Your task to perform on an android device: change text size in settings app Image 0: 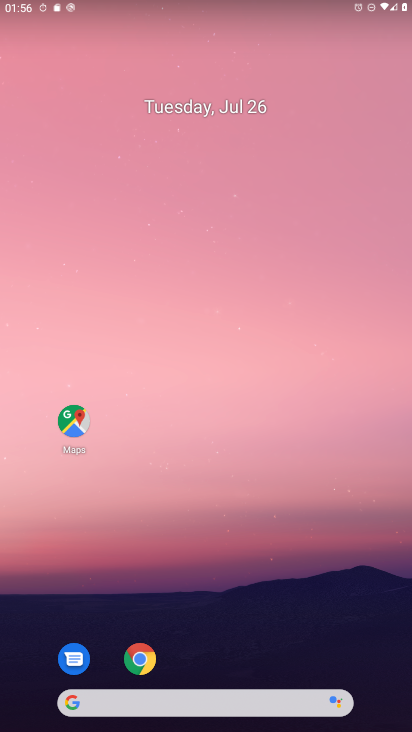
Step 0: drag from (325, 218) to (302, 0)
Your task to perform on an android device: change text size in settings app Image 1: 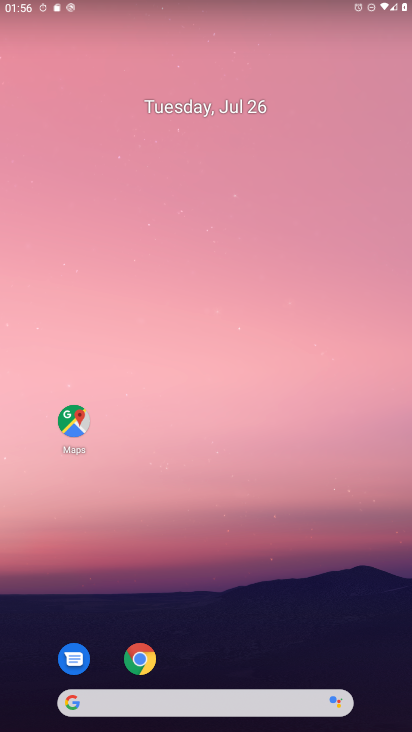
Step 1: drag from (296, 604) to (266, 74)
Your task to perform on an android device: change text size in settings app Image 2: 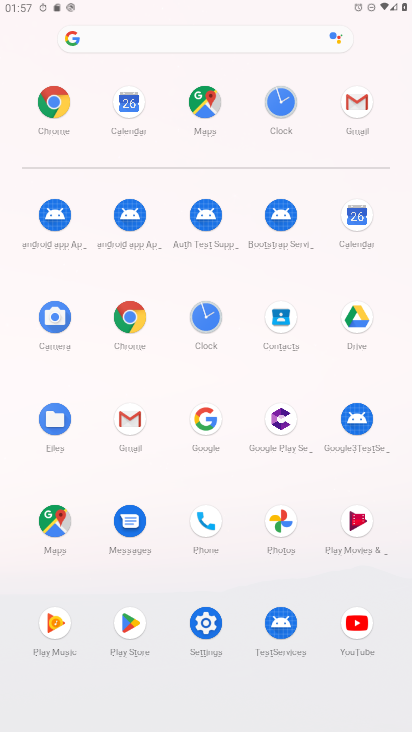
Step 2: click (198, 648)
Your task to perform on an android device: change text size in settings app Image 3: 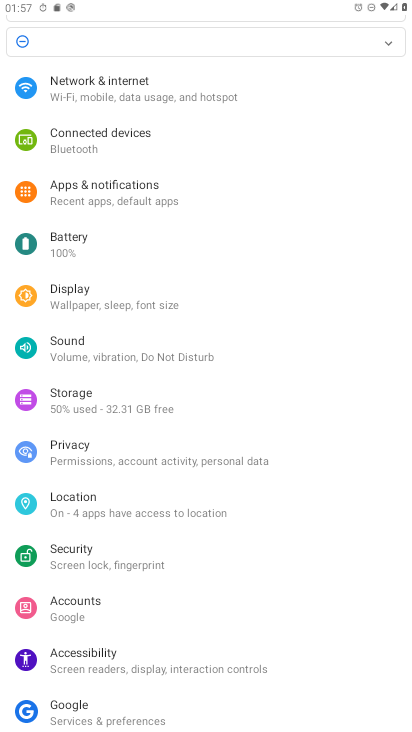
Step 3: drag from (235, 592) to (214, 99)
Your task to perform on an android device: change text size in settings app Image 4: 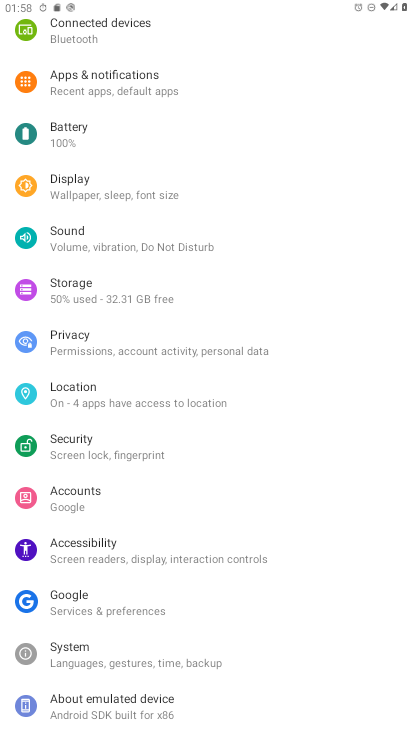
Step 4: drag from (136, 170) to (157, 273)
Your task to perform on an android device: change text size in settings app Image 5: 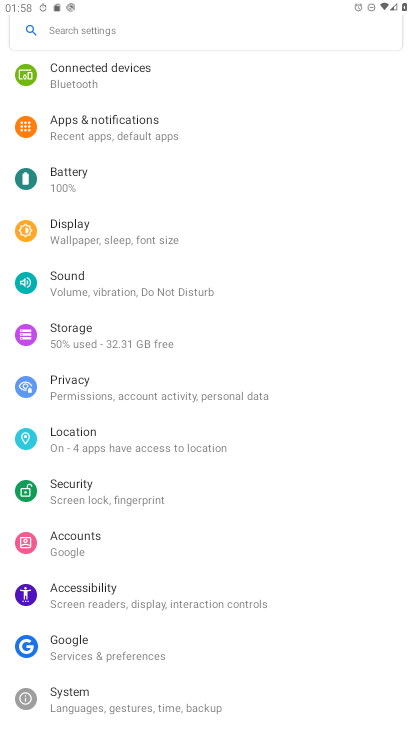
Step 5: click (97, 242)
Your task to perform on an android device: change text size in settings app Image 6: 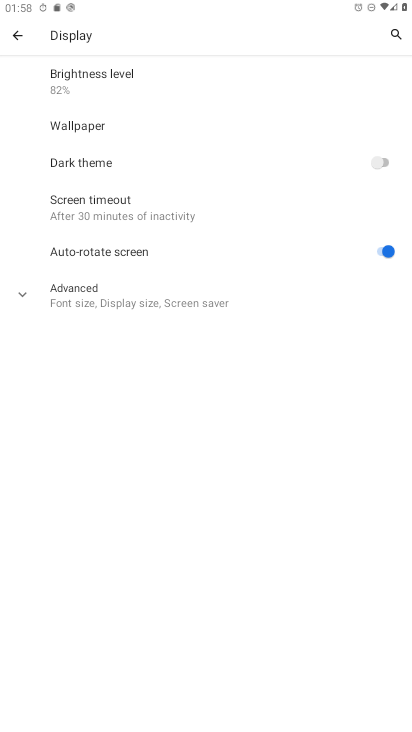
Step 6: click (108, 283)
Your task to perform on an android device: change text size in settings app Image 7: 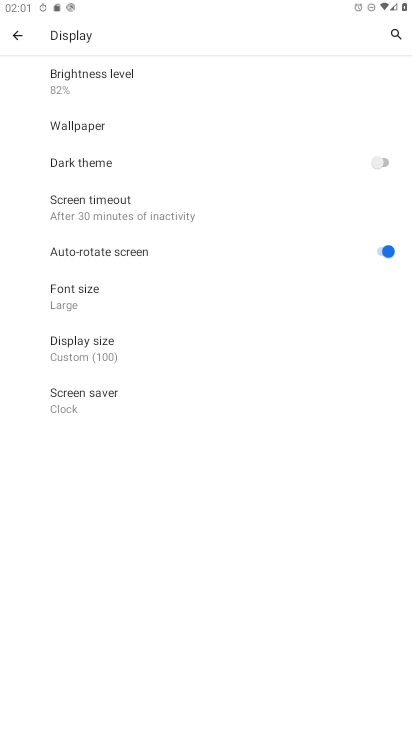
Step 7: click (66, 305)
Your task to perform on an android device: change text size in settings app Image 8: 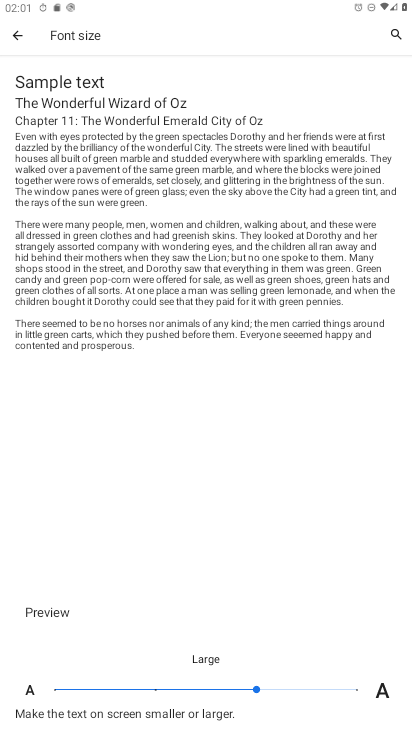
Step 8: click (30, 693)
Your task to perform on an android device: change text size in settings app Image 9: 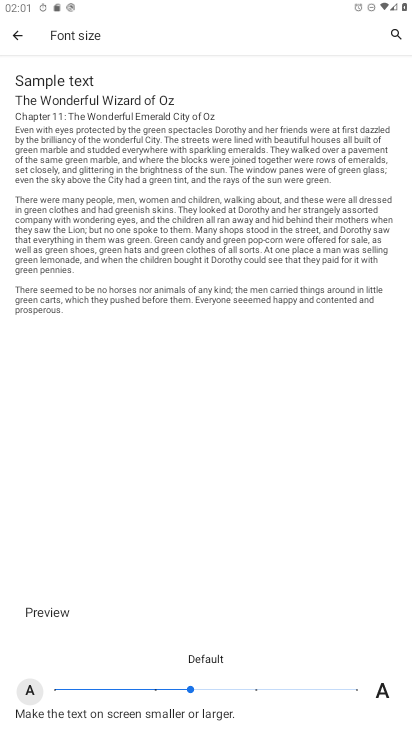
Step 9: task complete